Your task to perform on an android device: Go to battery settings Image 0: 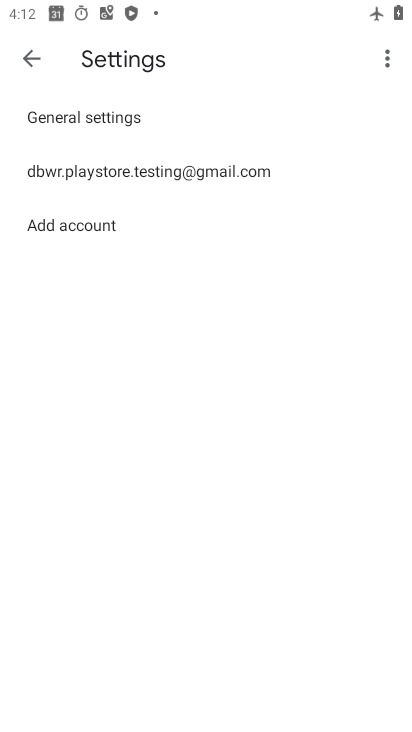
Step 0: press home button
Your task to perform on an android device: Go to battery settings Image 1: 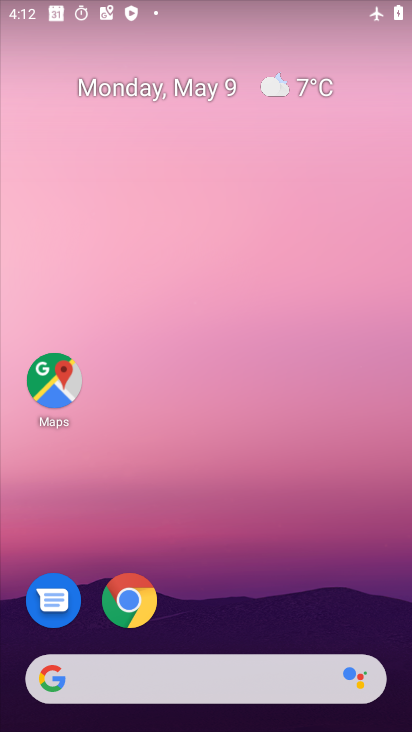
Step 1: drag from (246, 517) to (249, 178)
Your task to perform on an android device: Go to battery settings Image 2: 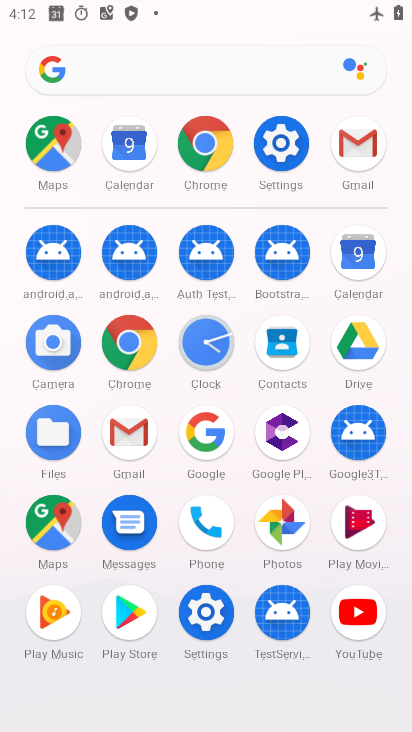
Step 2: click (286, 147)
Your task to perform on an android device: Go to battery settings Image 3: 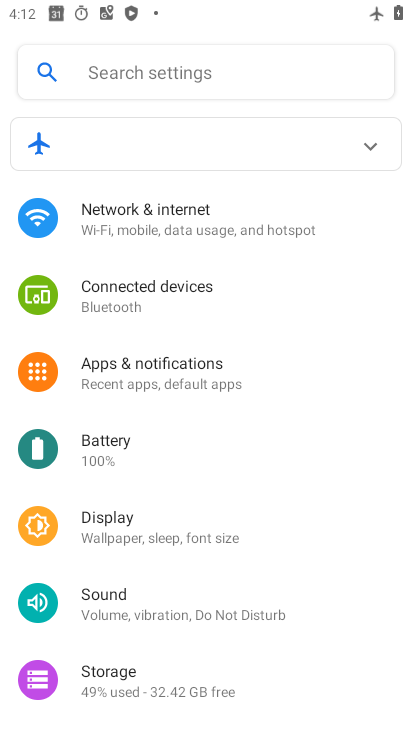
Step 3: click (125, 460)
Your task to perform on an android device: Go to battery settings Image 4: 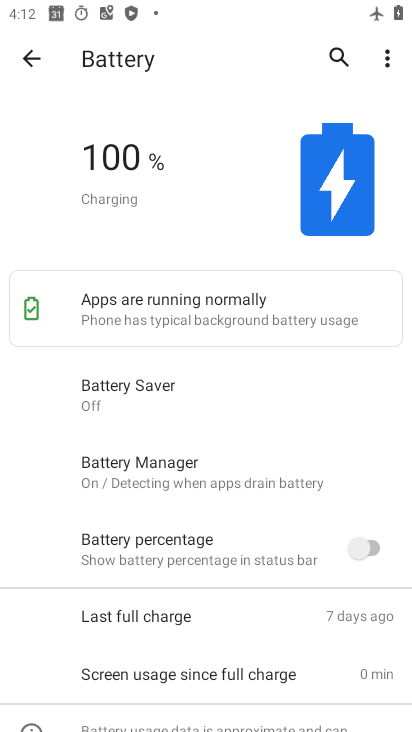
Step 4: task complete